Your task to perform on an android device: see tabs open on other devices in the chrome app Image 0: 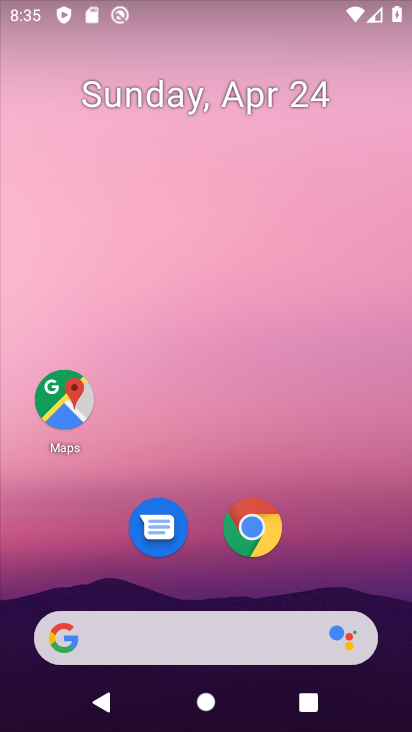
Step 0: click (265, 548)
Your task to perform on an android device: see tabs open on other devices in the chrome app Image 1: 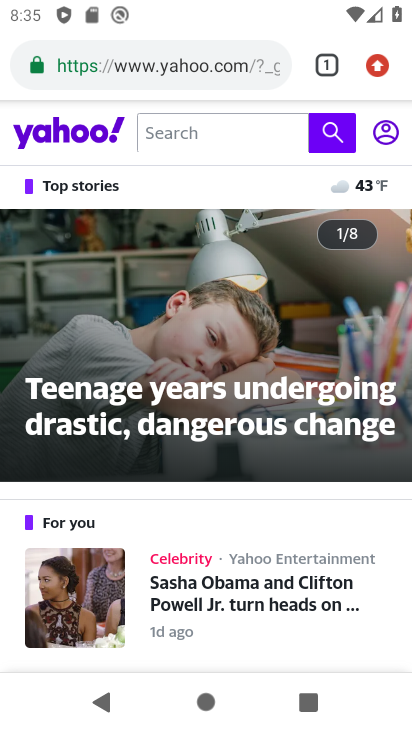
Step 1: click (364, 65)
Your task to perform on an android device: see tabs open on other devices in the chrome app Image 2: 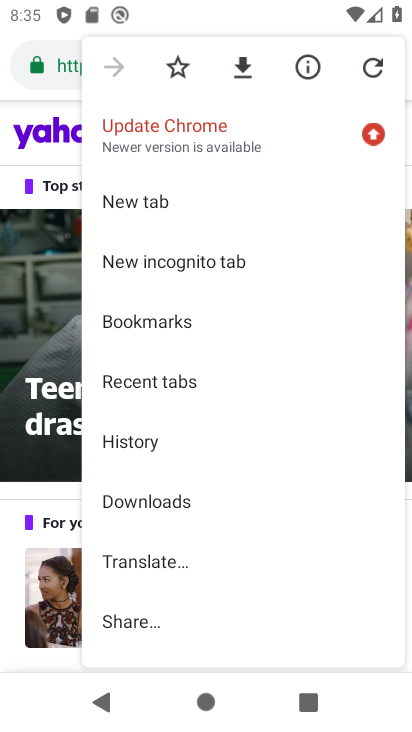
Step 2: click (132, 382)
Your task to perform on an android device: see tabs open on other devices in the chrome app Image 3: 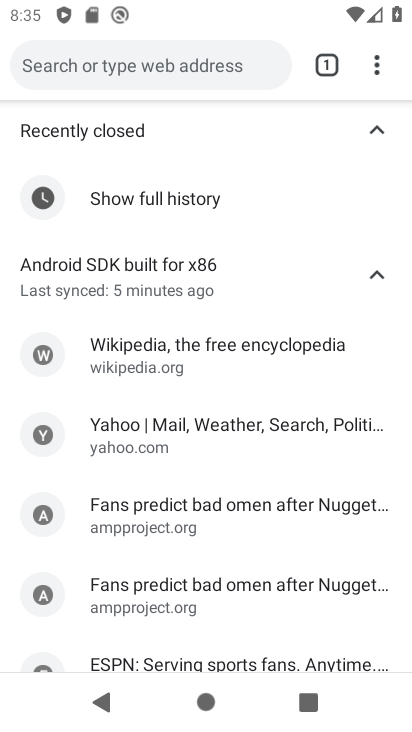
Step 3: task complete